Your task to perform on an android device: Open location settings Image 0: 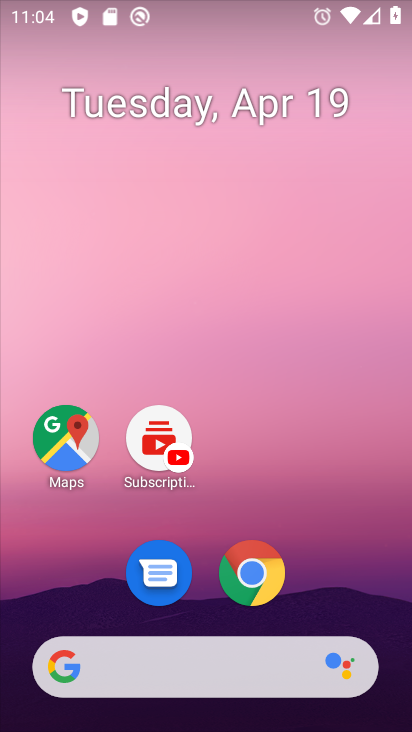
Step 0: drag from (315, 608) to (245, 155)
Your task to perform on an android device: Open location settings Image 1: 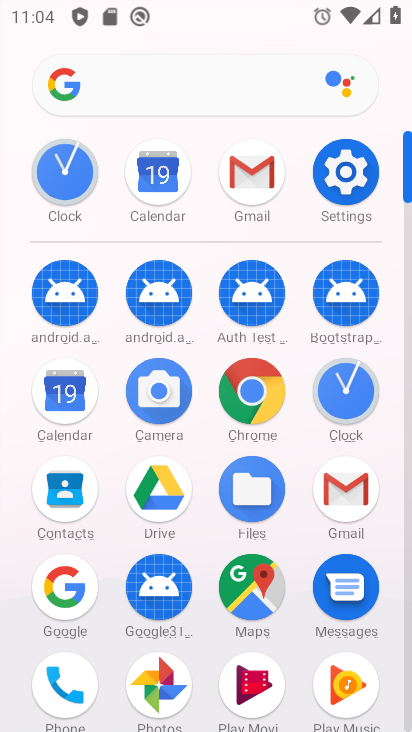
Step 1: click (346, 183)
Your task to perform on an android device: Open location settings Image 2: 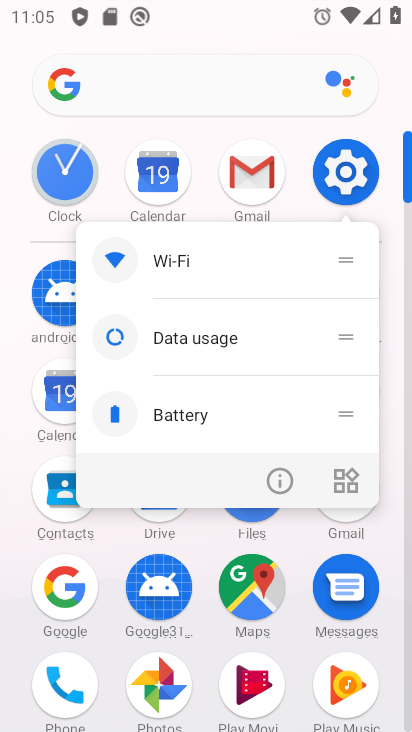
Step 2: click (346, 183)
Your task to perform on an android device: Open location settings Image 3: 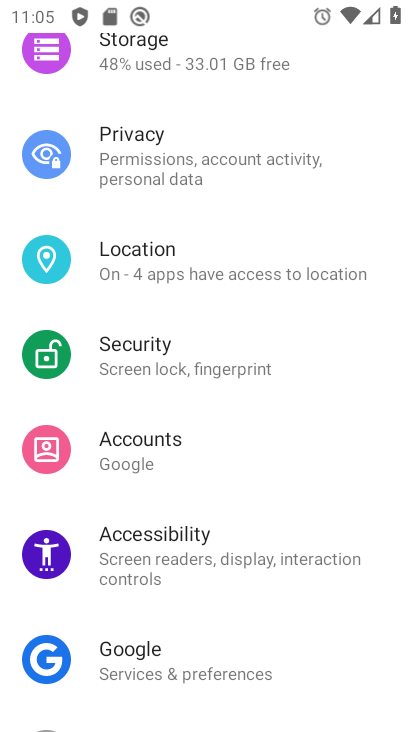
Step 3: click (102, 263)
Your task to perform on an android device: Open location settings Image 4: 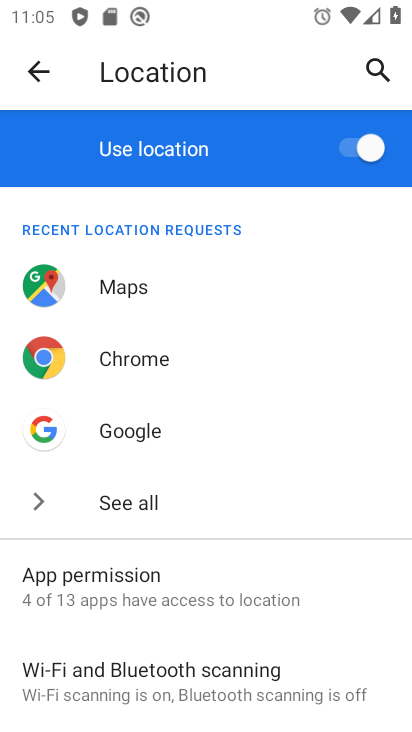
Step 4: task complete